Your task to perform on an android device: open a bookmark in the chrome app Image 0: 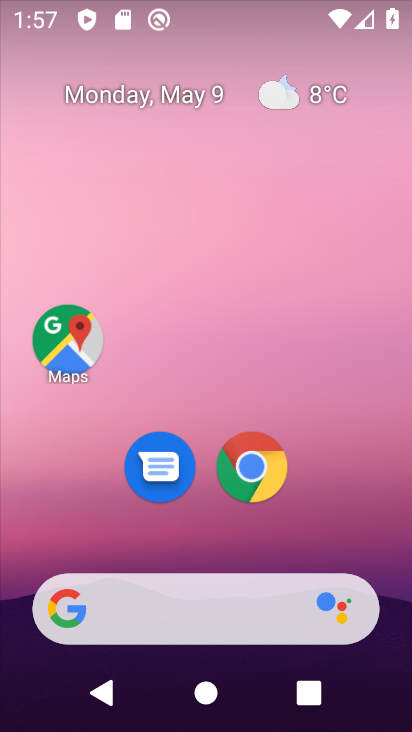
Step 0: click (252, 463)
Your task to perform on an android device: open a bookmark in the chrome app Image 1: 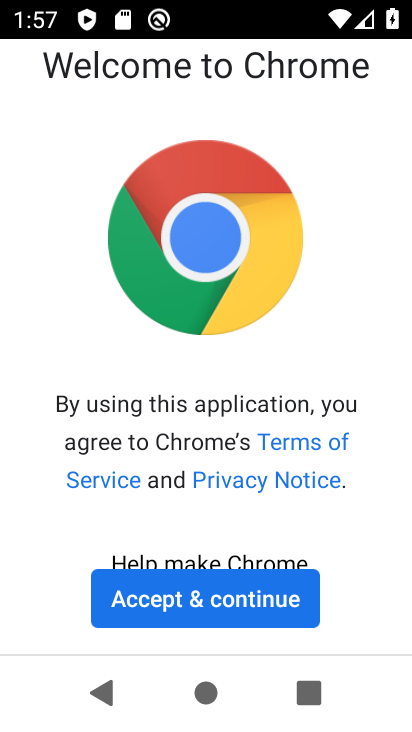
Step 1: click (221, 602)
Your task to perform on an android device: open a bookmark in the chrome app Image 2: 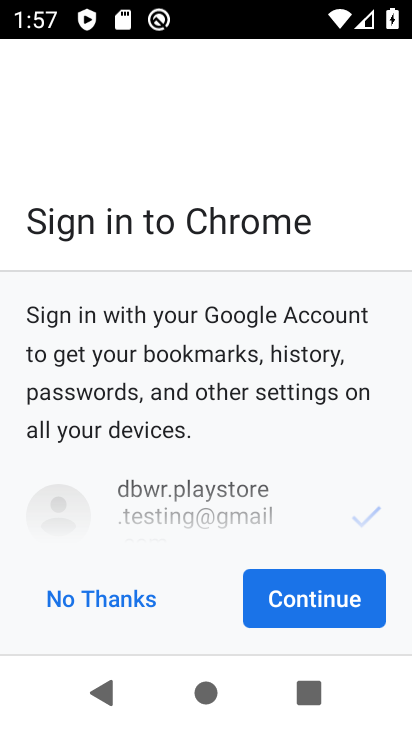
Step 2: click (291, 597)
Your task to perform on an android device: open a bookmark in the chrome app Image 3: 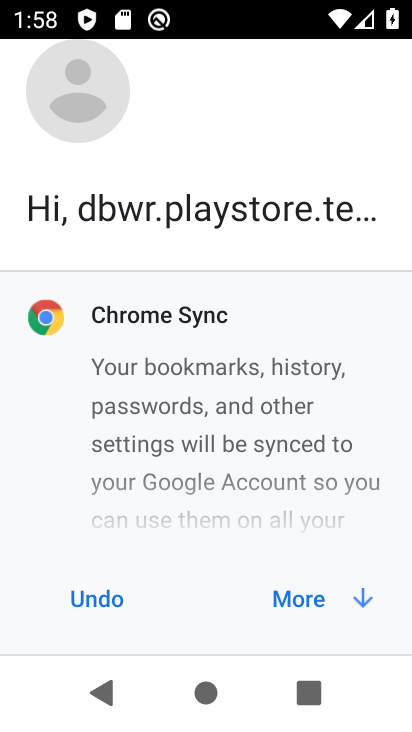
Step 3: click (307, 594)
Your task to perform on an android device: open a bookmark in the chrome app Image 4: 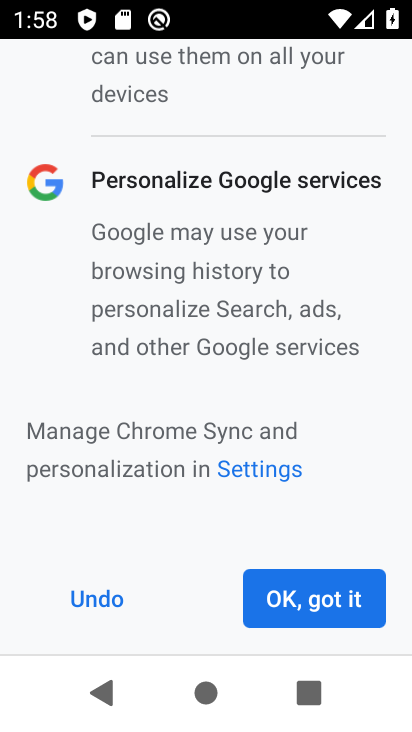
Step 4: click (306, 593)
Your task to perform on an android device: open a bookmark in the chrome app Image 5: 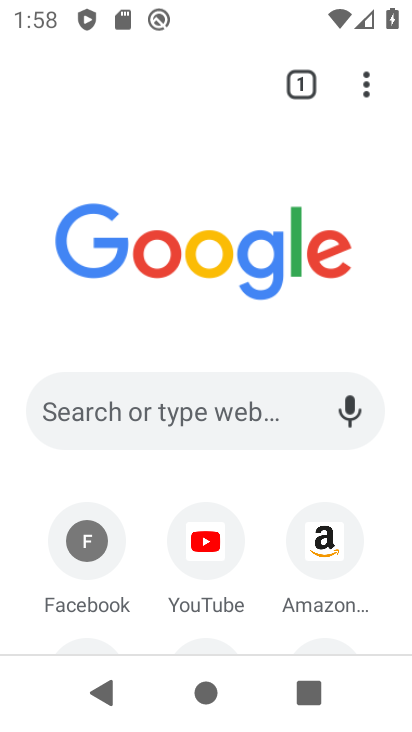
Step 5: task complete